Your task to perform on an android device: Open the calendar app, open the side menu, and click the "Day" option Image 0: 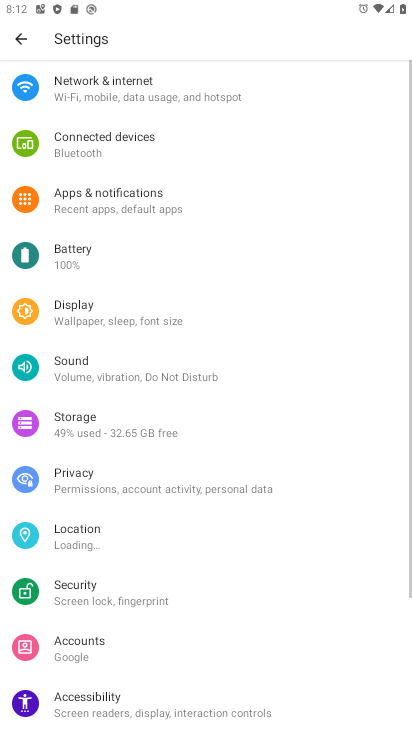
Step 0: press home button
Your task to perform on an android device: Open the calendar app, open the side menu, and click the "Day" option Image 1: 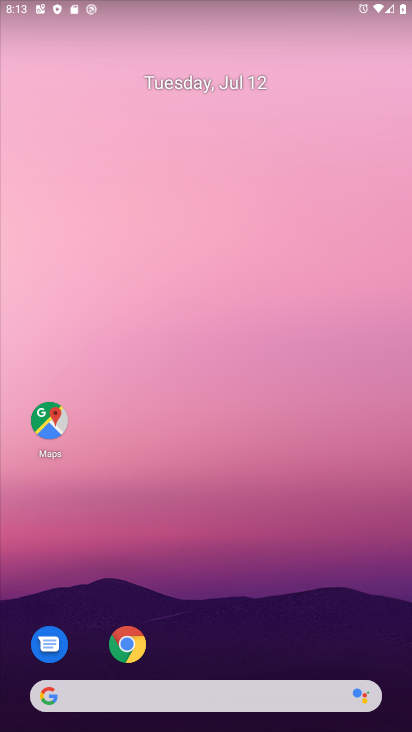
Step 1: drag from (296, 686) to (292, 449)
Your task to perform on an android device: Open the calendar app, open the side menu, and click the "Day" option Image 2: 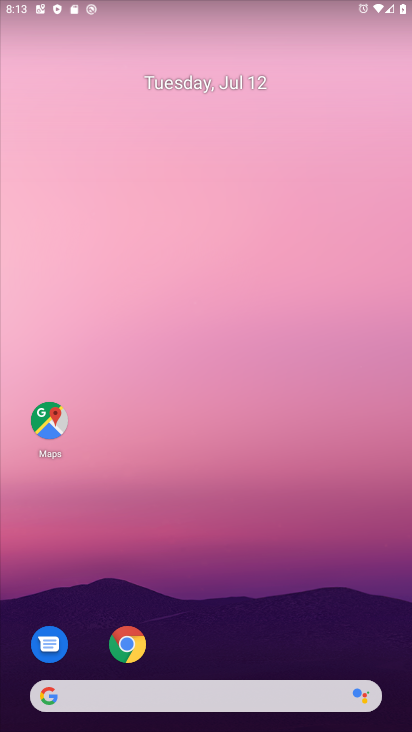
Step 2: drag from (212, 682) to (210, 235)
Your task to perform on an android device: Open the calendar app, open the side menu, and click the "Day" option Image 3: 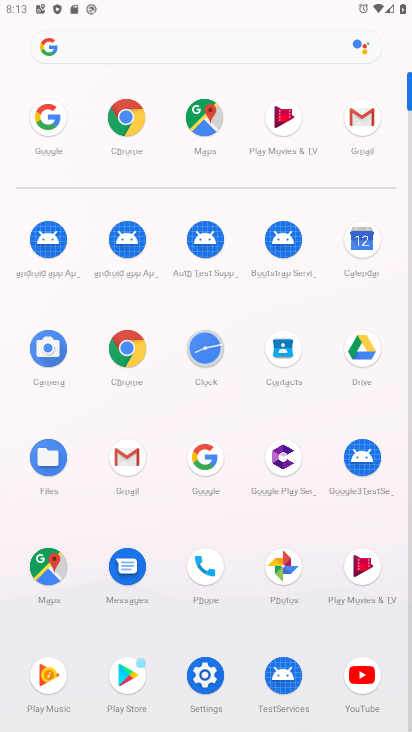
Step 3: click (353, 244)
Your task to perform on an android device: Open the calendar app, open the side menu, and click the "Day" option Image 4: 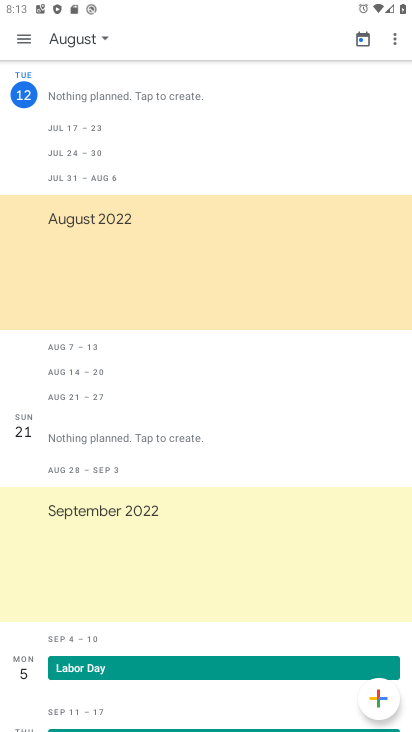
Step 4: click (26, 44)
Your task to perform on an android device: Open the calendar app, open the side menu, and click the "Day" option Image 5: 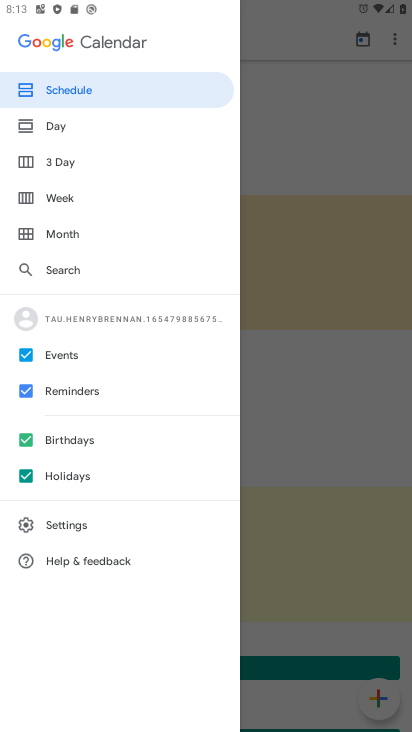
Step 5: click (63, 133)
Your task to perform on an android device: Open the calendar app, open the side menu, and click the "Day" option Image 6: 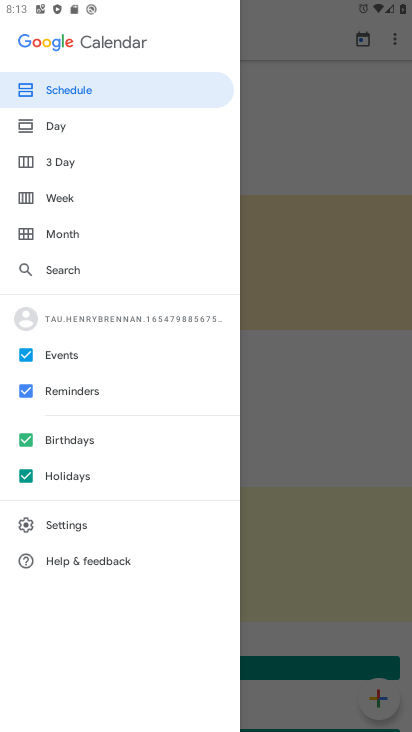
Step 6: click (58, 126)
Your task to perform on an android device: Open the calendar app, open the side menu, and click the "Day" option Image 7: 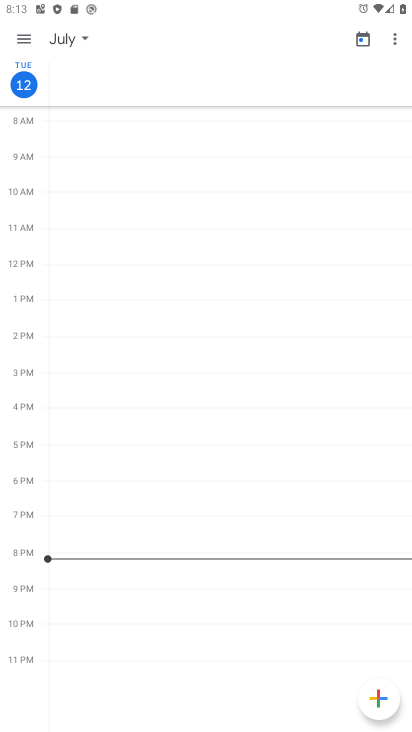
Step 7: task complete